Your task to perform on an android device: What's the weather today? Image 0: 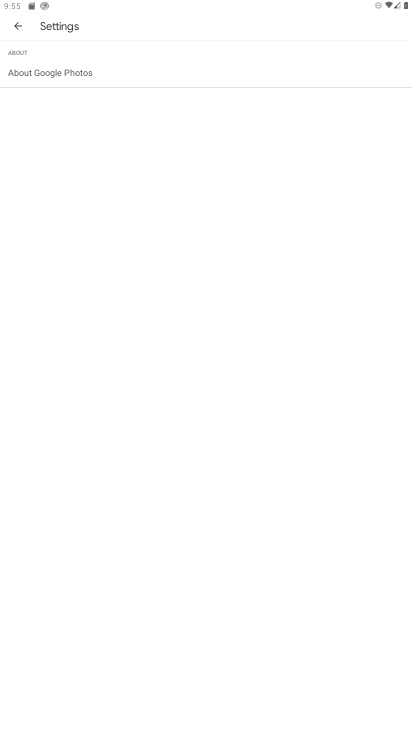
Step 0: press home button
Your task to perform on an android device: What's the weather today? Image 1: 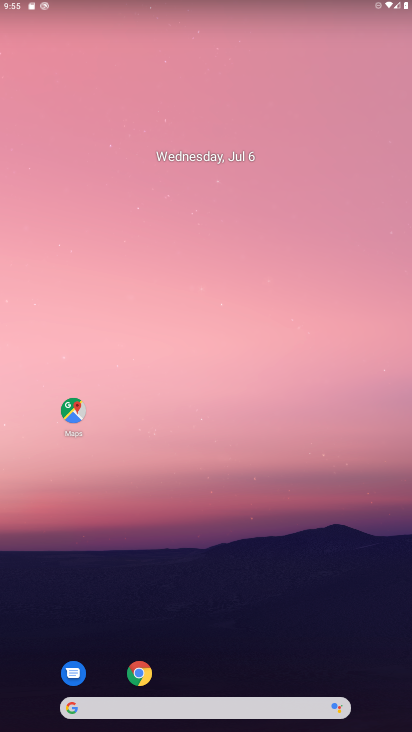
Step 1: click (316, 712)
Your task to perform on an android device: What's the weather today? Image 2: 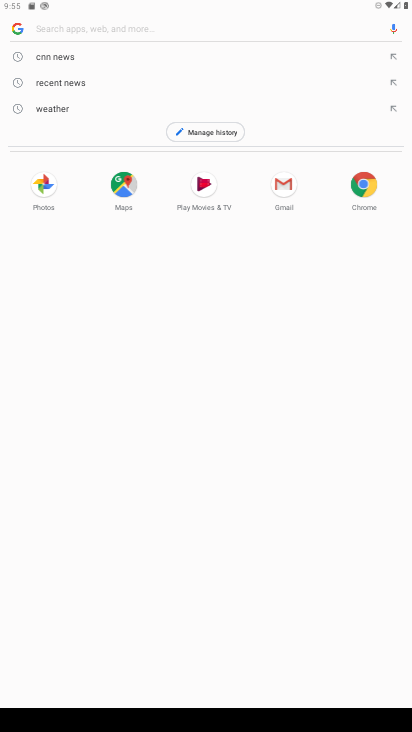
Step 2: click (46, 104)
Your task to perform on an android device: What's the weather today? Image 3: 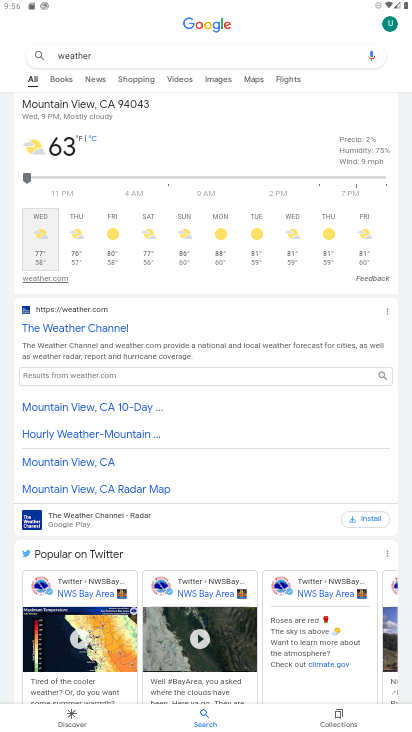
Step 3: task complete